Your task to perform on an android device: Go to Reddit.com Image 0: 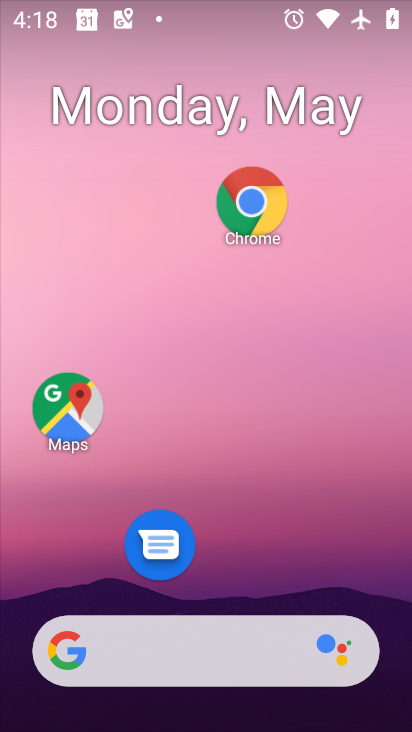
Step 0: click (261, 222)
Your task to perform on an android device: Go to Reddit.com Image 1: 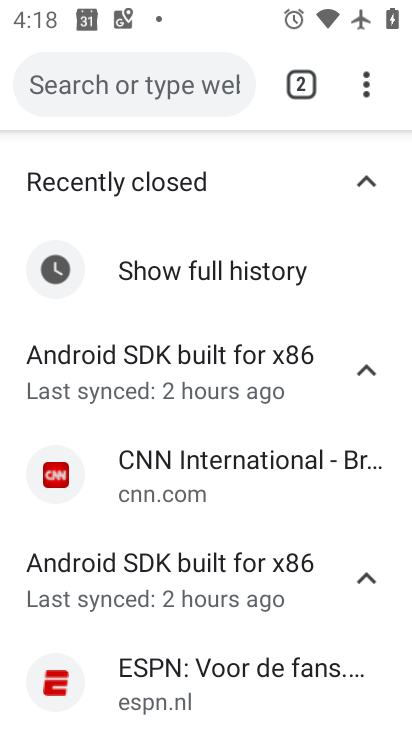
Step 1: click (306, 93)
Your task to perform on an android device: Go to Reddit.com Image 2: 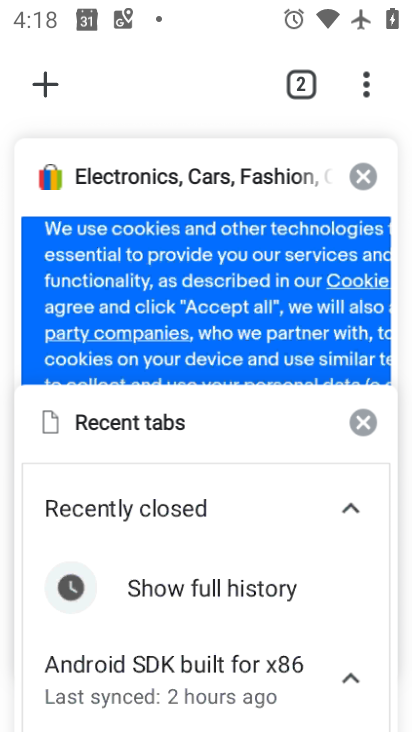
Step 2: click (46, 89)
Your task to perform on an android device: Go to Reddit.com Image 3: 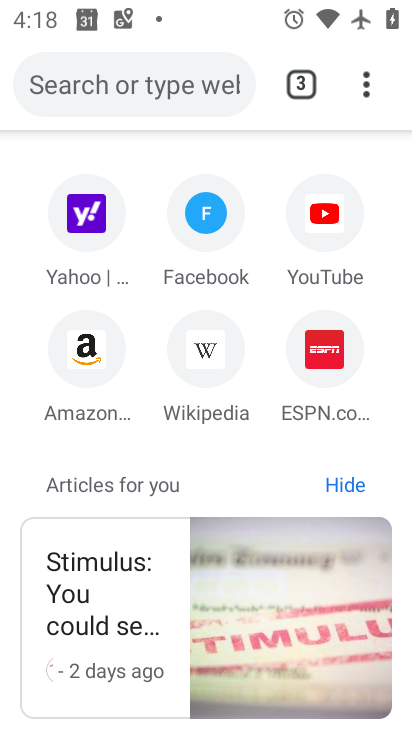
Step 3: click (146, 99)
Your task to perform on an android device: Go to Reddit.com Image 4: 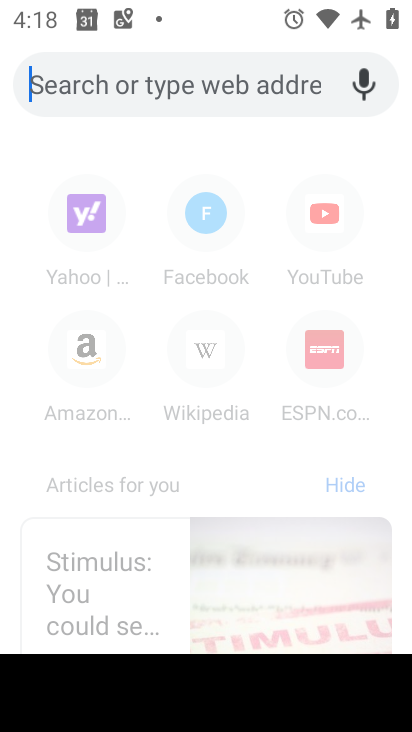
Step 4: type "Reddit.com"
Your task to perform on an android device: Go to Reddit.com Image 5: 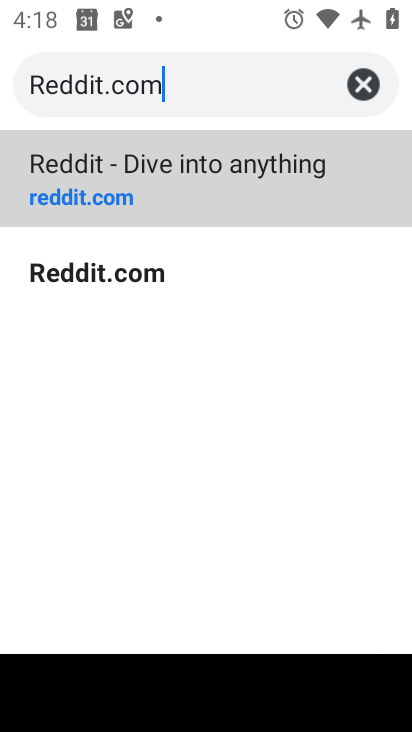
Step 5: click (154, 267)
Your task to perform on an android device: Go to Reddit.com Image 6: 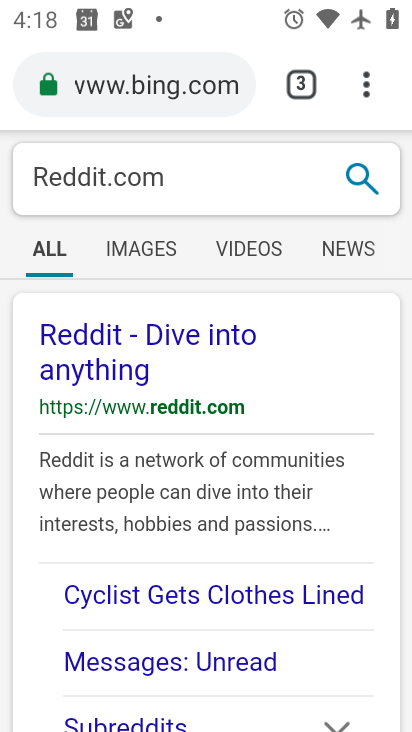
Step 6: click (115, 335)
Your task to perform on an android device: Go to Reddit.com Image 7: 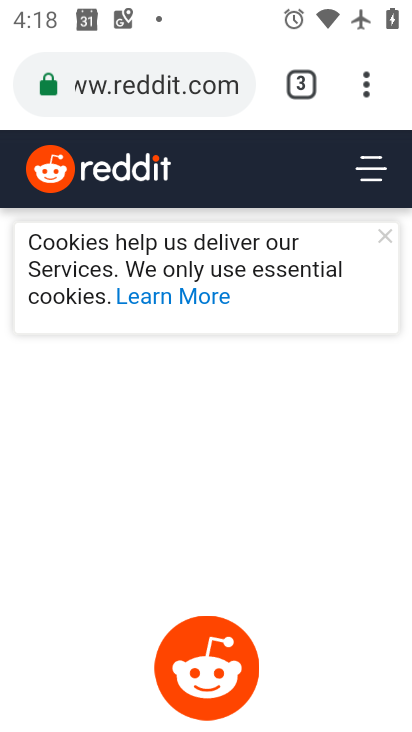
Step 7: task complete